Your task to perform on an android device: Search for vegetarian restaurants on Maps Image 0: 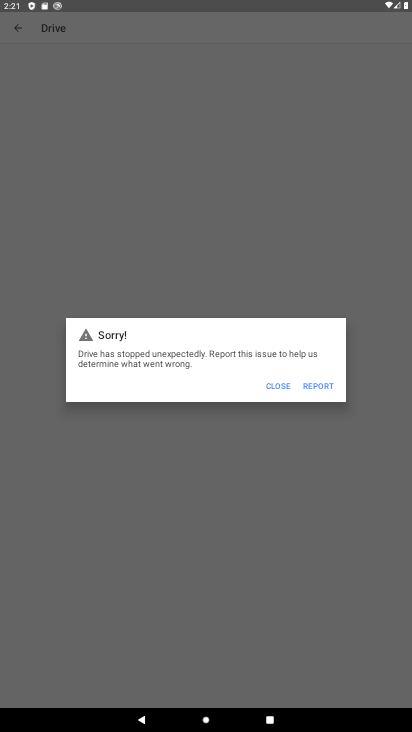
Step 0: press home button
Your task to perform on an android device: Search for vegetarian restaurants on Maps Image 1: 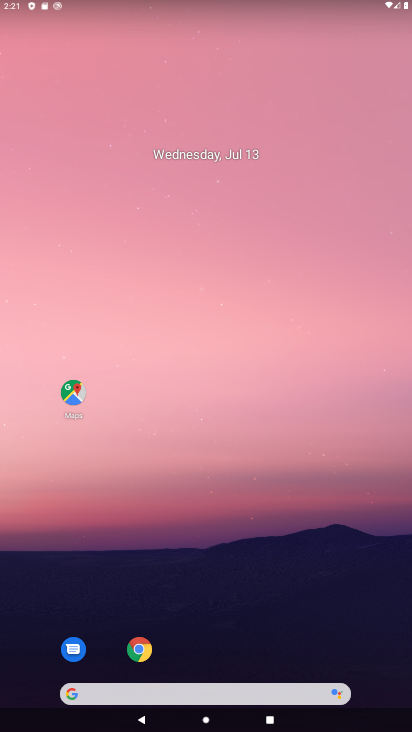
Step 1: click (68, 392)
Your task to perform on an android device: Search for vegetarian restaurants on Maps Image 2: 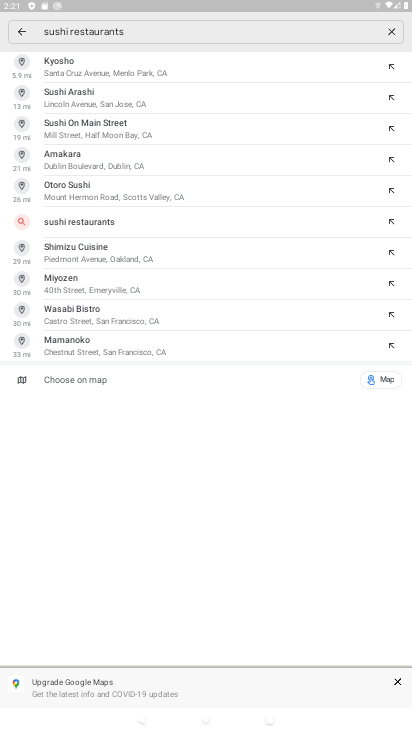
Step 2: click (392, 27)
Your task to perform on an android device: Search for vegetarian restaurants on Maps Image 3: 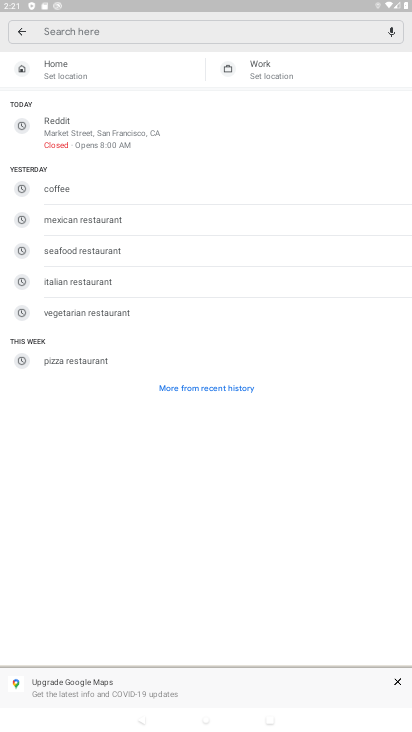
Step 3: click (98, 28)
Your task to perform on an android device: Search for vegetarian restaurants on Maps Image 4: 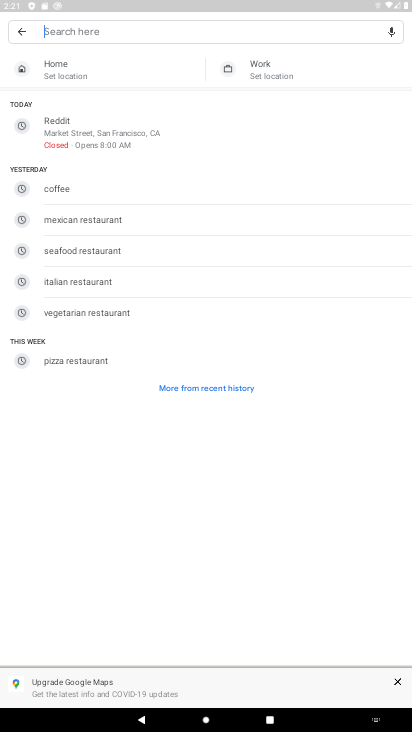
Step 4: click (93, 311)
Your task to perform on an android device: Search for vegetarian restaurants on Maps Image 5: 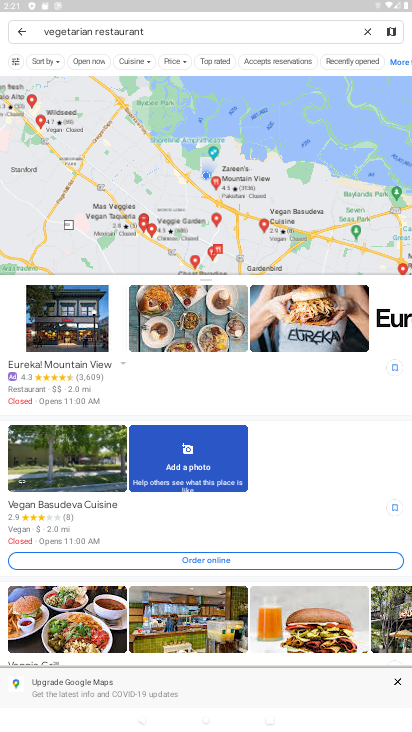
Step 5: task complete